Your task to perform on an android device: search for starred emails in the gmail app Image 0: 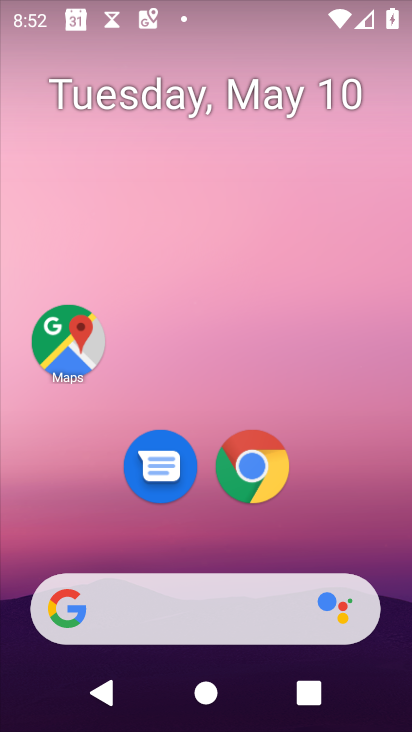
Step 0: drag from (301, 525) to (351, 94)
Your task to perform on an android device: search for starred emails in the gmail app Image 1: 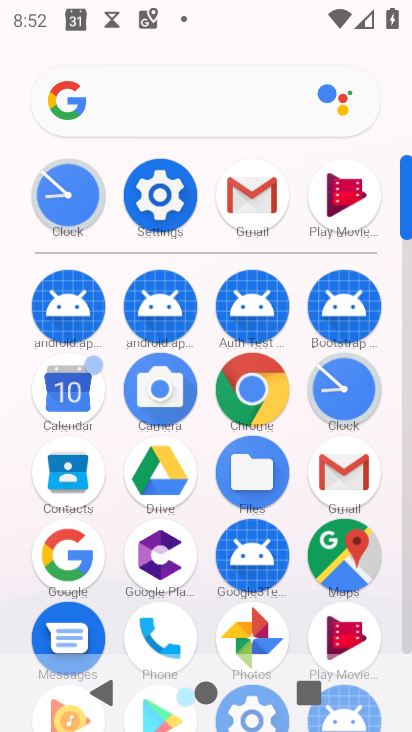
Step 1: click (249, 207)
Your task to perform on an android device: search for starred emails in the gmail app Image 2: 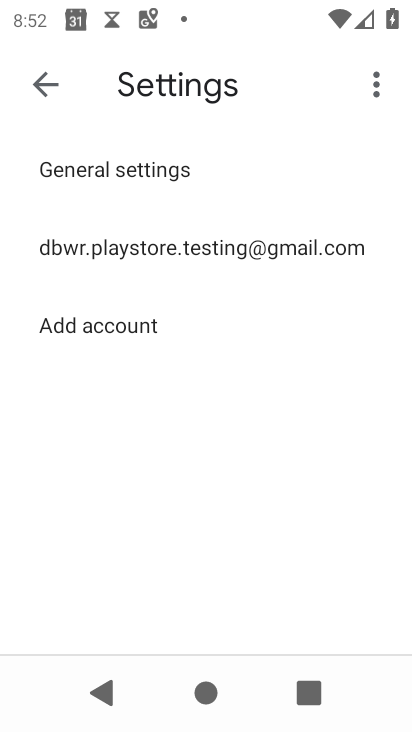
Step 2: click (60, 79)
Your task to perform on an android device: search for starred emails in the gmail app Image 3: 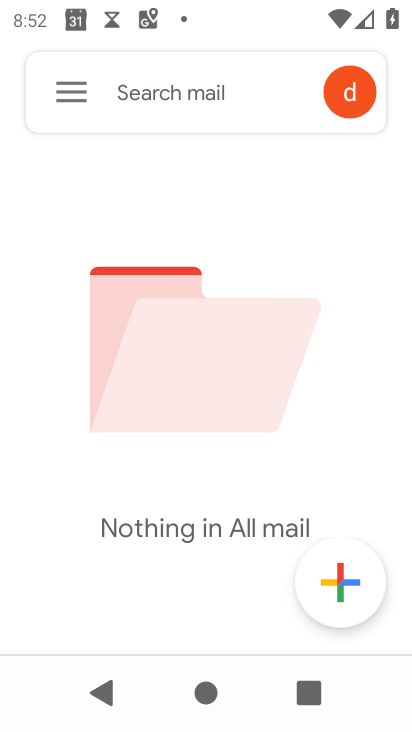
Step 3: click (69, 83)
Your task to perform on an android device: search for starred emails in the gmail app Image 4: 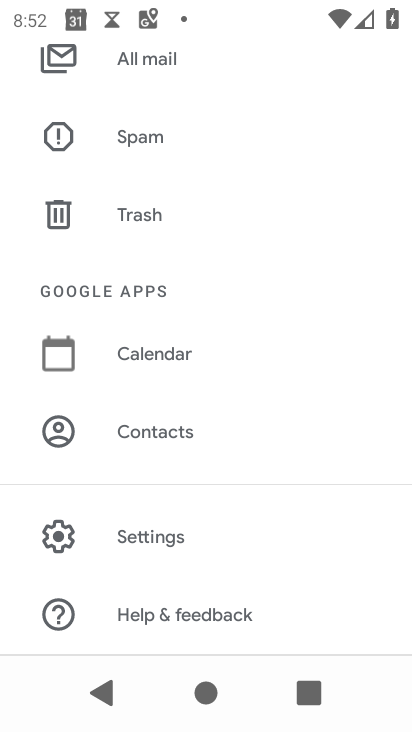
Step 4: drag from (179, 197) to (194, 302)
Your task to perform on an android device: search for starred emails in the gmail app Image 5: 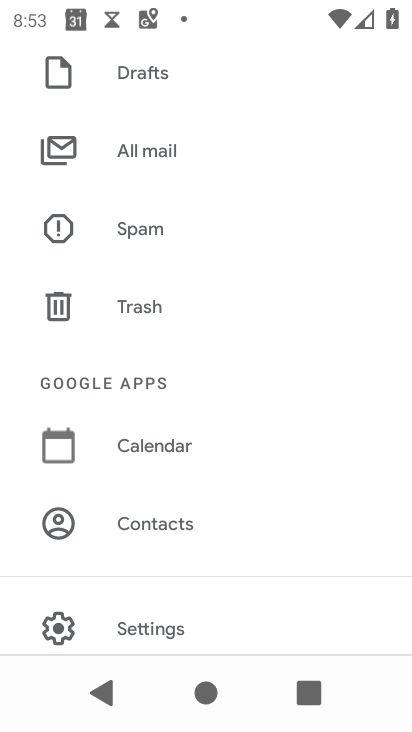
Step 5: drag from (230, 160) to (240, 256)
Your task to perform on an android device: search for starred emails in the gmail app Image 6: 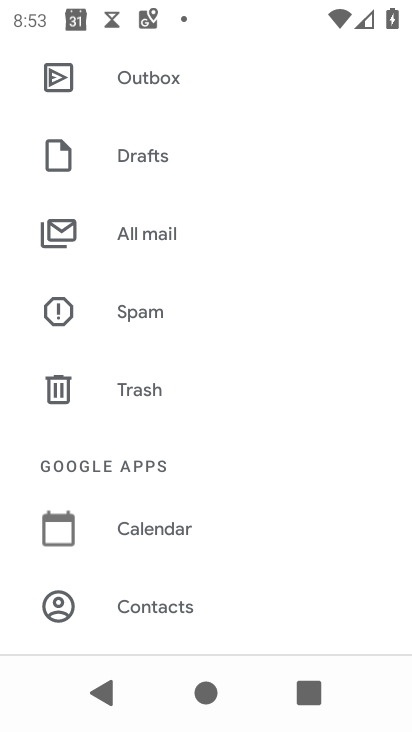
Step 6: drag from (226, 169) to (237, 258)
Your task to perform on an android device: search for starred emails in the gmail app Image 7: 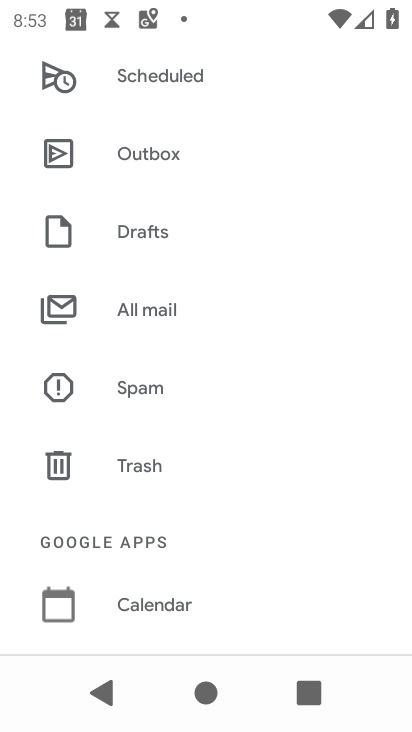
Step 7: drag from (243, 188) to (244, 277)
Your task to perform on an android device: search for starred emails in the gmail app Image 8: 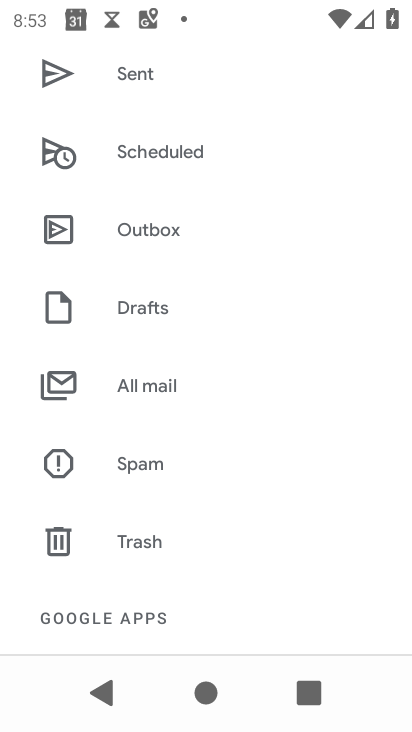
Step 8: drag from (233, 148) to (238, 253)
Your task to perform on an android device: search for starred emails in the gmail app Image 9: 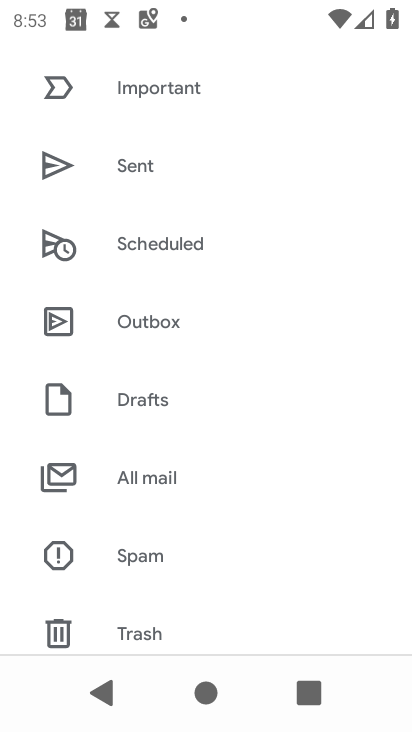
Step 9: drag from (233, 136) to (222, 272)
Your task to perform on an android device: search for starred emails in the gmail app Image 10: 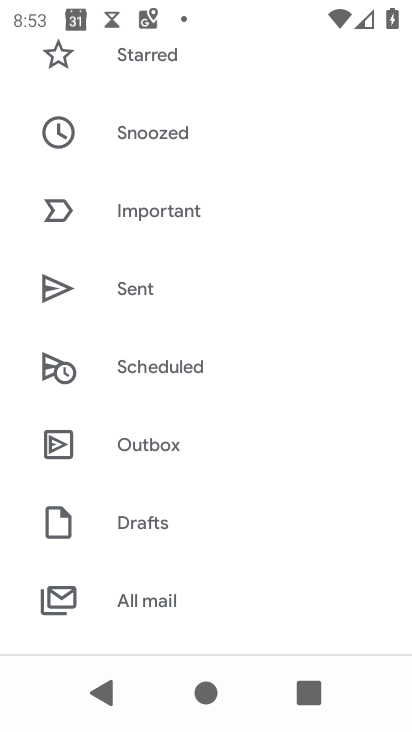
Step 10: click (203, 55)
Your task to perform on an android device: search for starred emails in the gmail app Image 11: 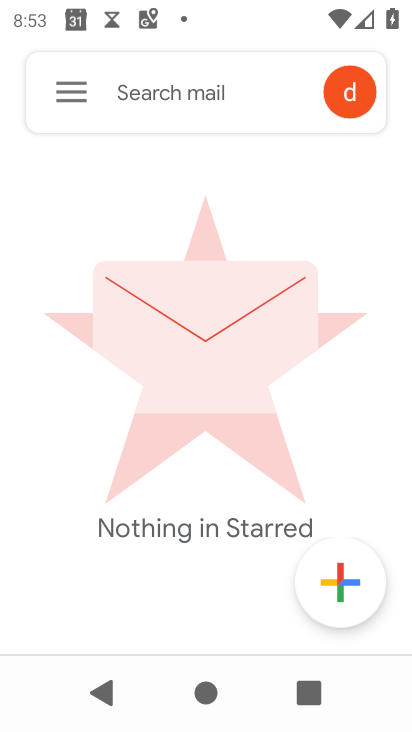
Step 11: task complete